Your task to perform on an android device: open a new tab in the chrome app Image 0: 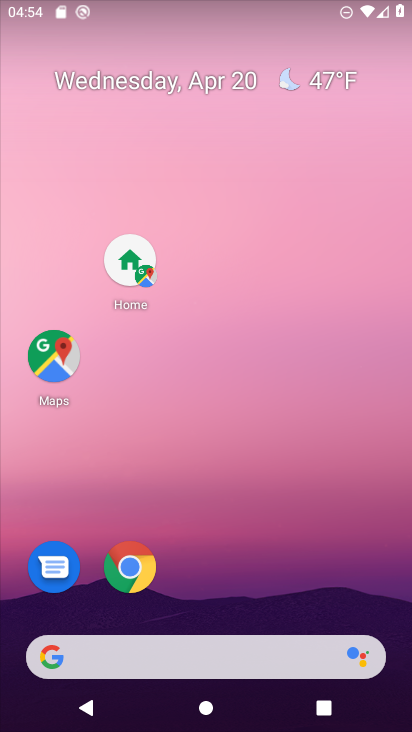
Step 0: click (136, 575)
Your task to perform on an android device: open a new tab in the chrome app Image 1: 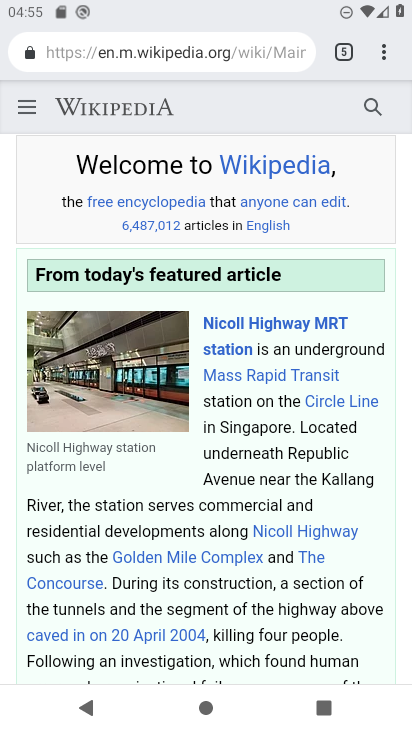
Step 1: click (347, 62)
Your task to perform on an android device: open a new tab in the chrome app Image 2: 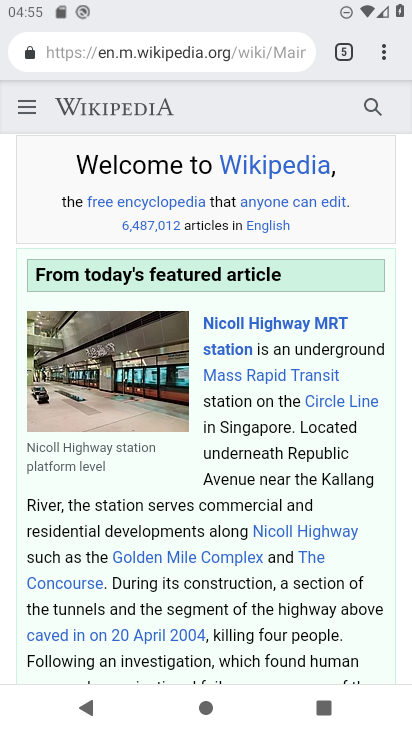
Step 2: click (345, 53)
Your task to perform on an android device: open a new tab in the chrome app Image 3: 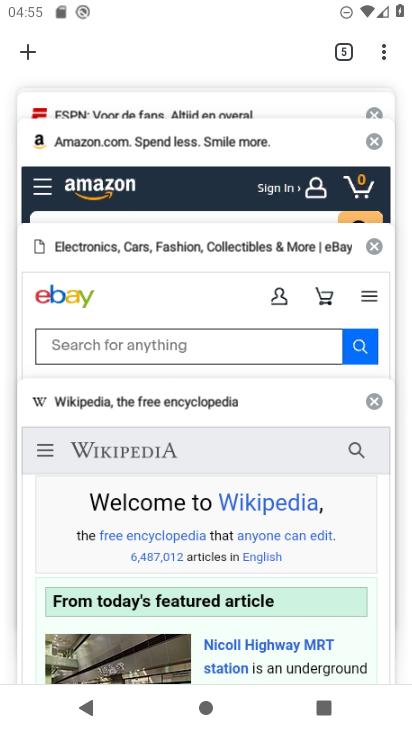
Step 3: click (28, 60)
Your task to perform on an android device: open a new tab in the chrome app Image 4: 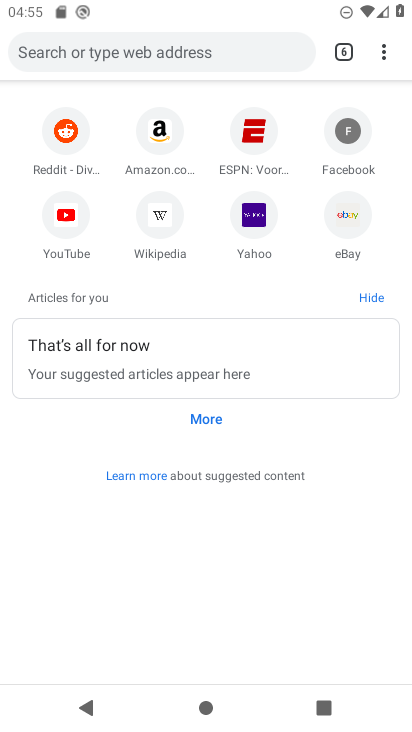
Step 4: task complete